Your task to perform on an android device: Open Google Image 0: 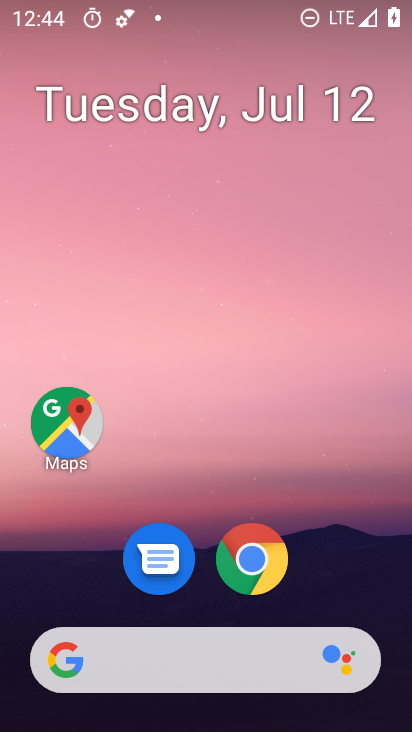
Step 0: drag from (208, 602) to (275, 1)
Your task to perform on an android device: Open Google Image 1: 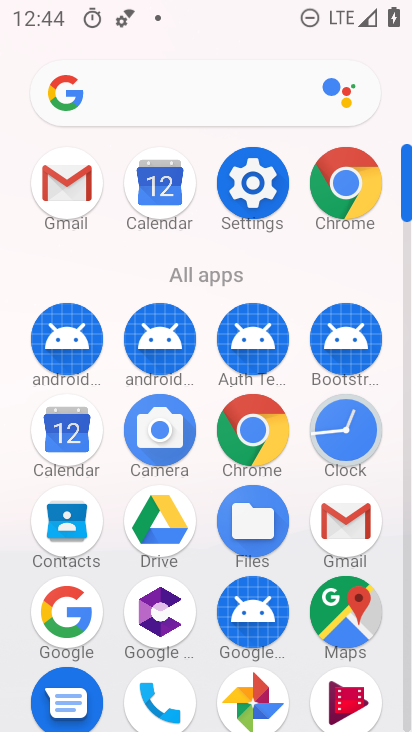
Step 1: click (63, 616)
Your task to perform on an android device: Open Google Image 2: 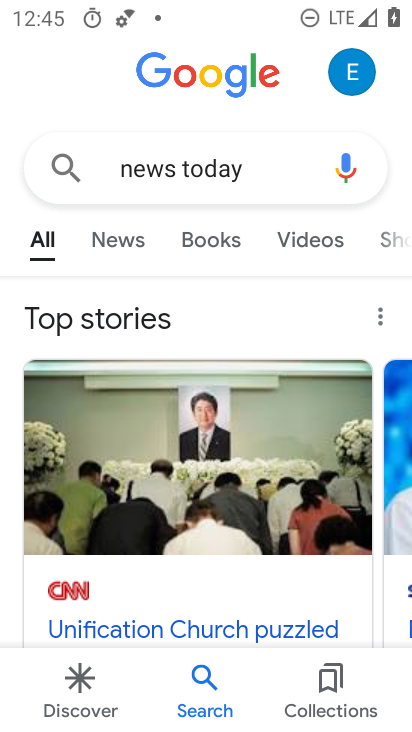
Step 2: task complete